Your task to perform on an android device: toggle notification dots Image 0: 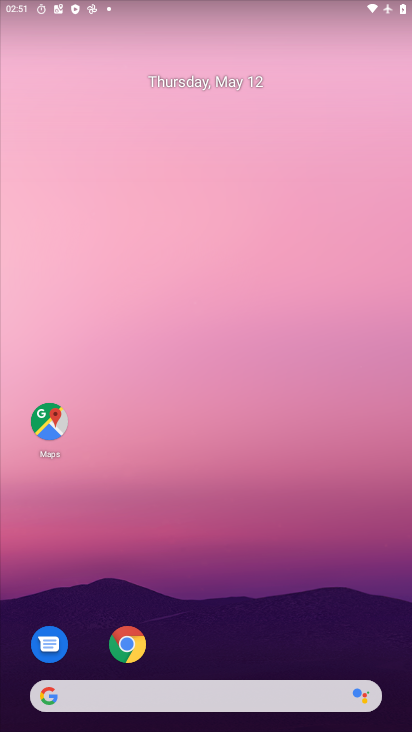
Step 0: drag from (252, 361) to (216, 14)
Your task to perform on an android device: toggle notification dots Image 1: 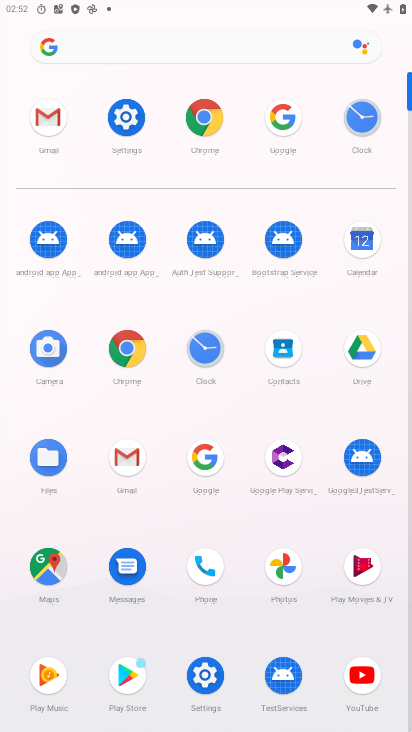
Step 1: click (122, 119)
Your task to perform on an android device: toggle notification dots Image 2: 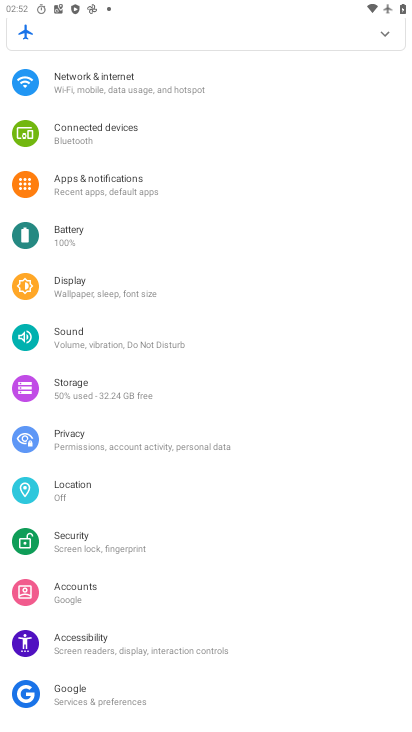
Step 2: click (117, 185)
Your task to perform on an android device: toggle notification dots Image 3: 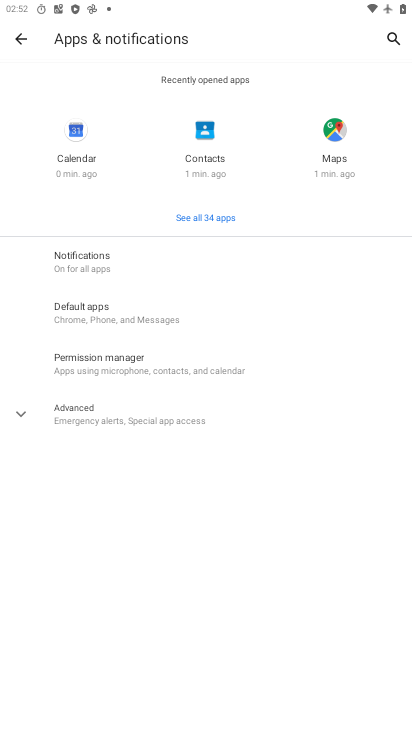
Step 3: click (145, 266)
Your task to perform on an android device: toggle notification dots Image 4: 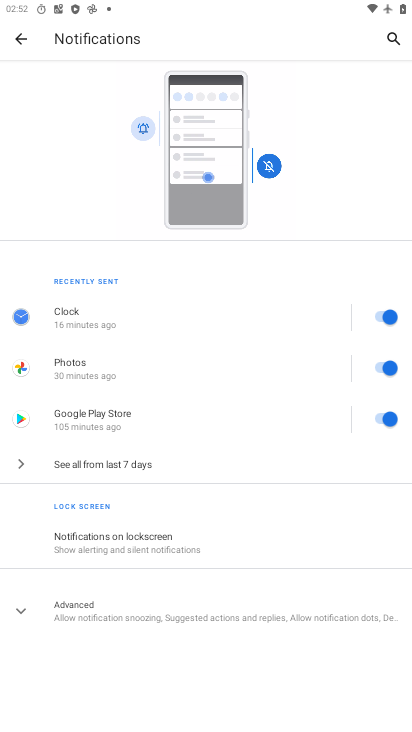
Step 4: click (175, 620)
Your task to perform on an android device: toggle notification dots Image 5: 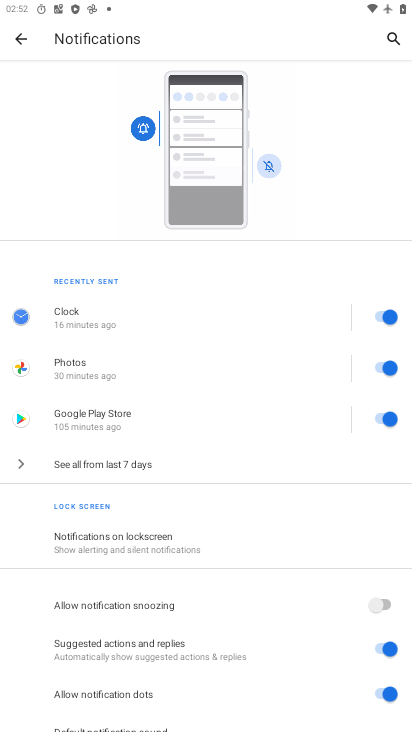
Step 5: click (390, 695)
Your task to perform on an android device: toggle notification dots Image 6: 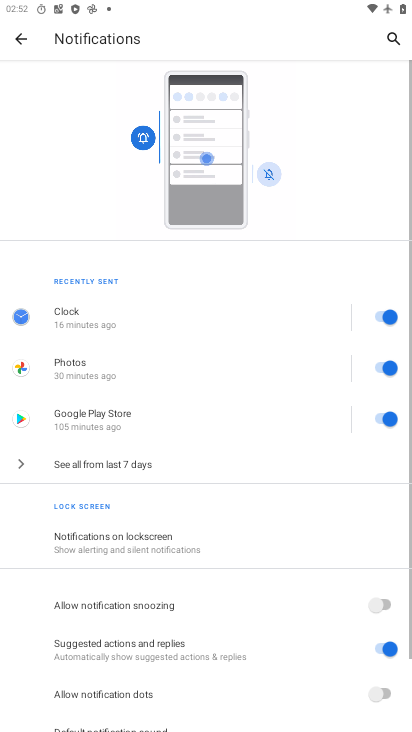
Step 6: task complete